Your task to perform on an android device: delete the emails in spam in the gmail app Image 0: 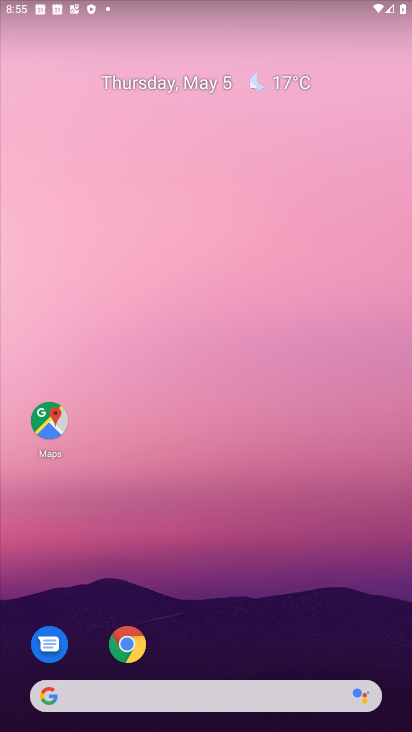
Step 0: click (232, 375)
Your task to perform on an android device: delete the emails in spam in the gmail app Image 1: 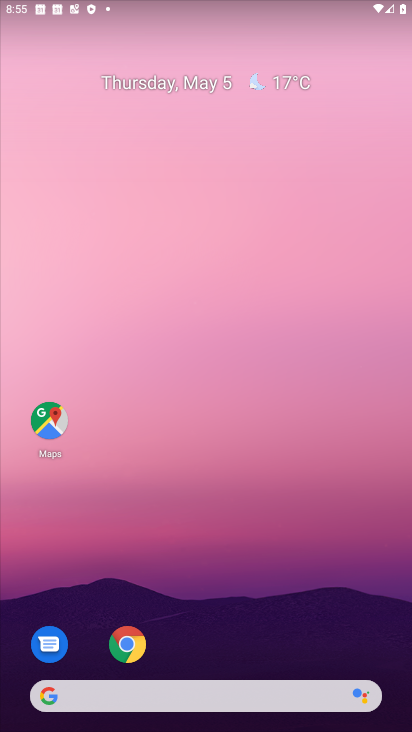
Step 1: drag from (189, 653) to (191, 198)
Your task to perform on an android device: delete the emails in spam in the gmail app Image 2: 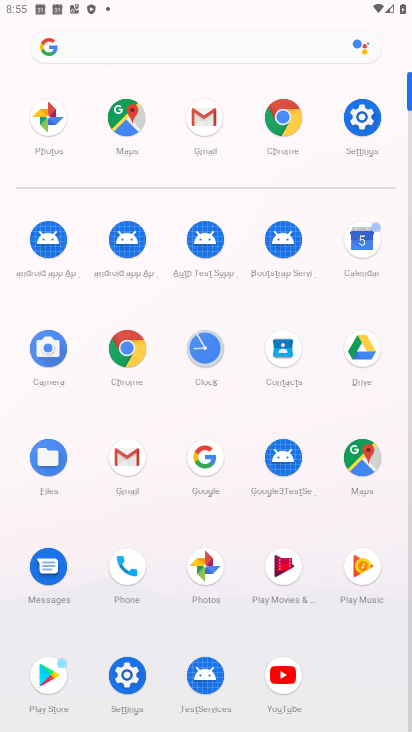
Step 2: click (128, 454)
Your task to perform on an android device: delete the emails in spam in the gmail app Image 3: 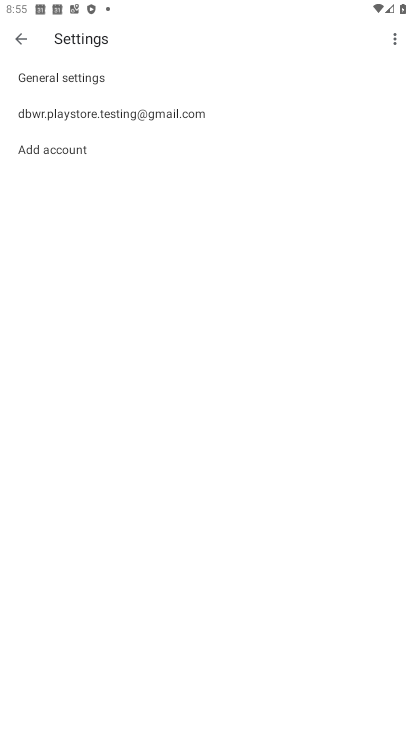
Step 3: click (13, 42)
Your task to perform on an android device: delete the emails in spam in the gmail app Image 4: 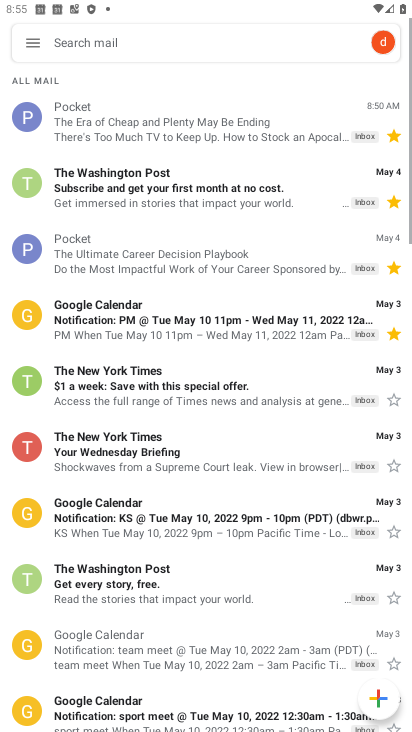
Step 4: click (30, 51)
Your task to perform on an android device: delete the emails in spam in the gmail app Image 5: 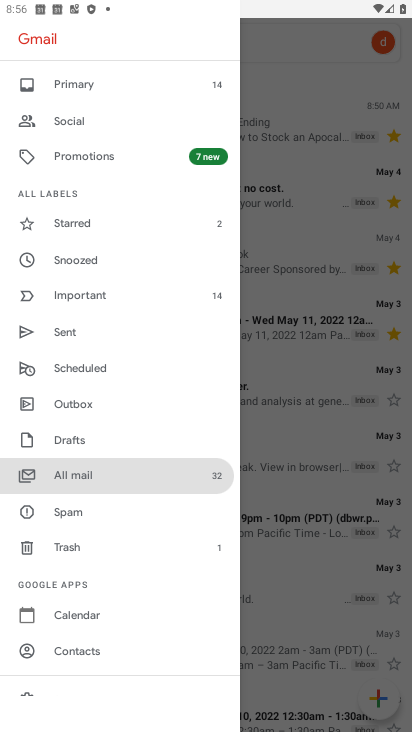
Step 5: click (99, 510)
Your task to perform on an android device: delete the emails in spam in the gmail app Image 6: 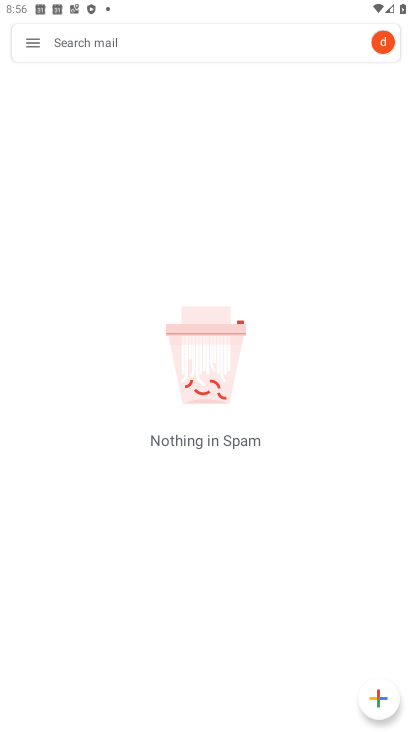
Step 6: task complete